Your task to perform on an android device: Go to Yahoo.com Image 0: 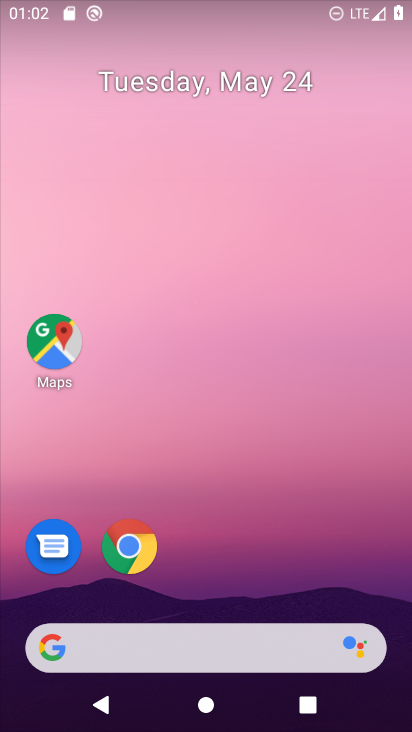
Step 0: drag from (205, 553) to (273, 35)
Your task to perform on an android device: Go to Yahoo.com Image 1: 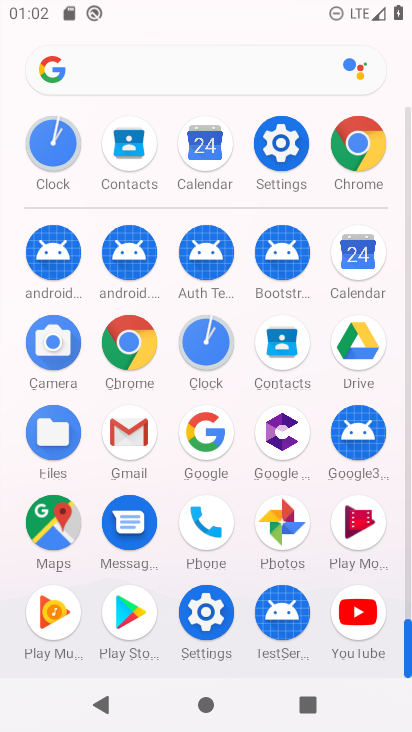
Step 1: click (130, 341)
Your task to perform on an android device: Go to Yahoo.com Image 2: 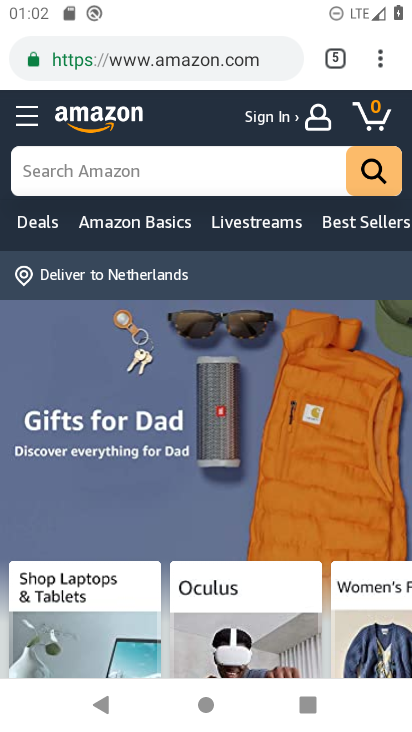
Step 2: drag from (383, 52) to (164, 122)
Your task to perform on an android device: Go to Yahoo.com Image 3: 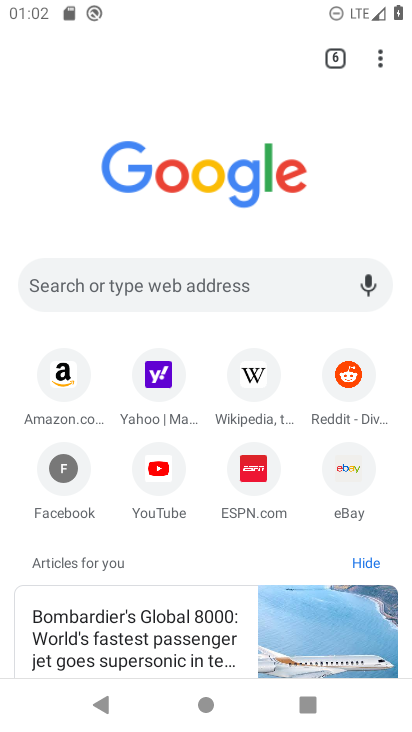
Step 3: click (156, 398)
Your task to perform on an android device: Go to Yahoo.com Image 4: 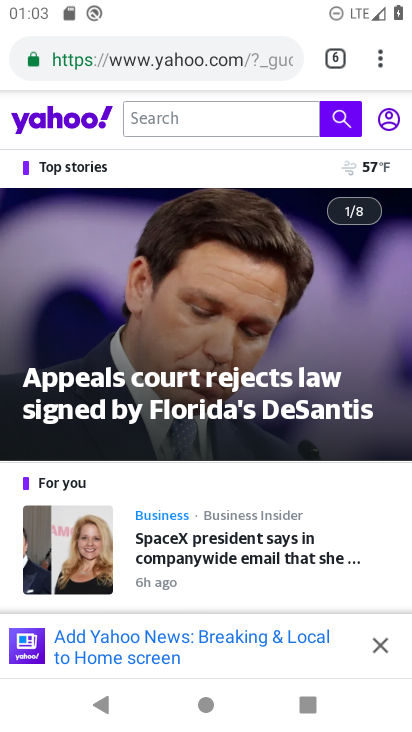
Step 4: task complete